Your task to perform on an android device: Add "razer huntsman" to the cart on newegg.com, then select checkout. Image 0: 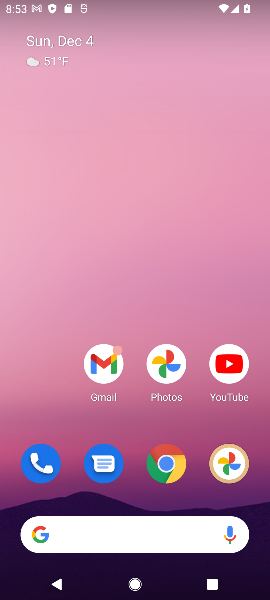
Step 0: click (91, 537)
Your task to perform on an android device: Add "razer huntsman" to the cart on newegg.com, then select checkout. Image 1: 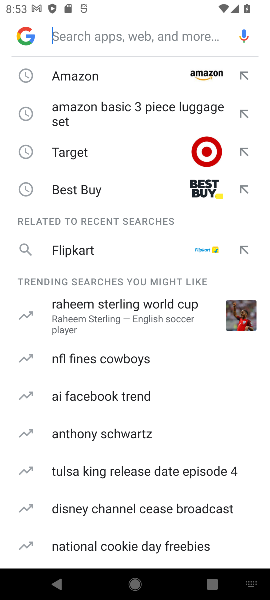
Step 1: type "newegg.com"
Your task to perform on an android device: Add "razer huntsman" to the cart on newegg.com, then select checkout. Image 2: 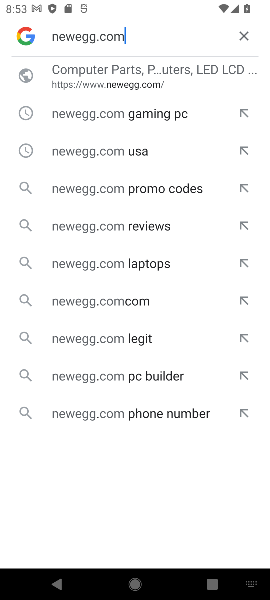
Step 2: click (131, 82)
Your task to perform on an android device: Add "razer huntsman" to the cart on newegg.com, then select checkout. Image 3: 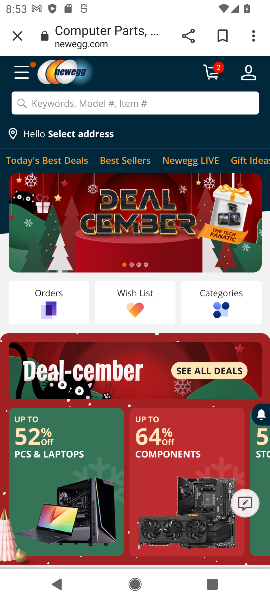
Step 3: click (74, 108)
Your task to perform on an android device: Add "razer huntsman" to the cart on newegg.com, then select checkout. Image 4: 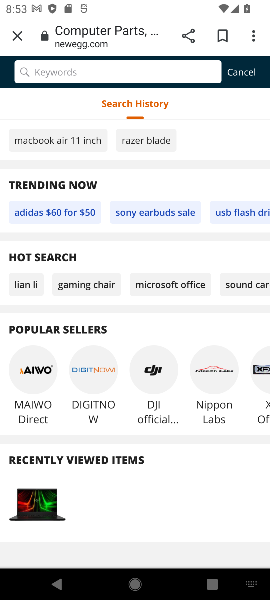
Step 4: type "razerr huntsman"
Your task to perform on an android device: Add "razer huntsman" to the cart on newegg.com, then select checkout. Image 5: 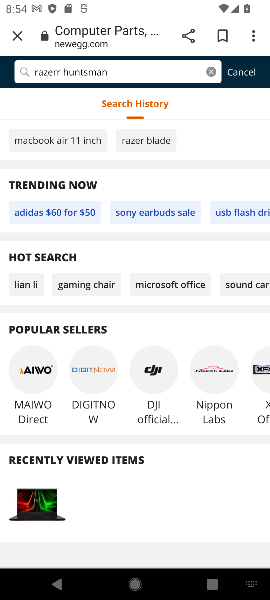
Step 5: task complete